Your task to perform on an android device: check storage Image 0: 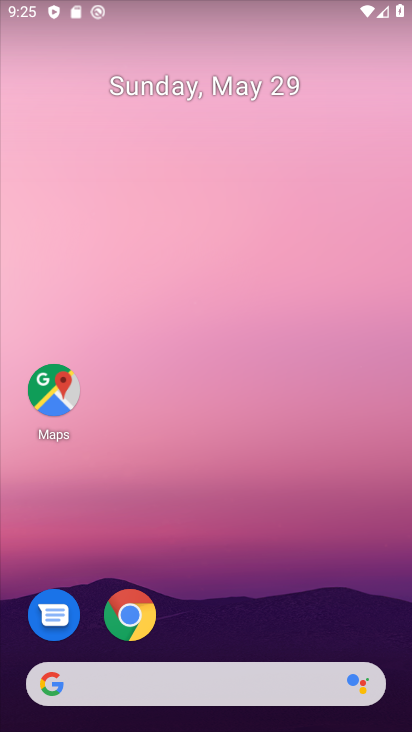
Step 0: drag from (215, 642) to (164, 9)
Your task to perform on an android device: check storage Image 1: 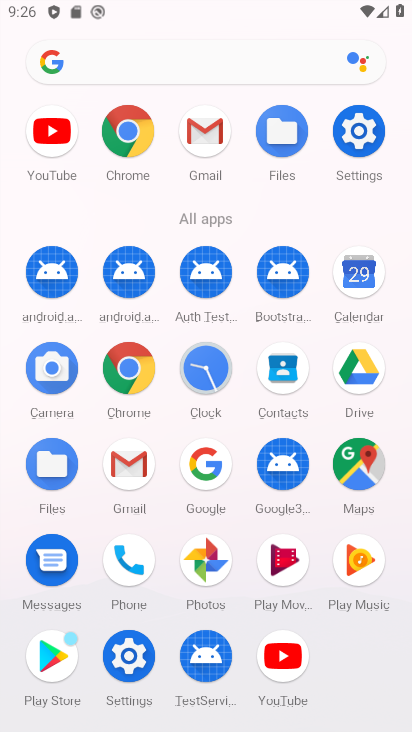
Step 1: click (368, 144)
Your task to perform on an android device: check storage Image 2: 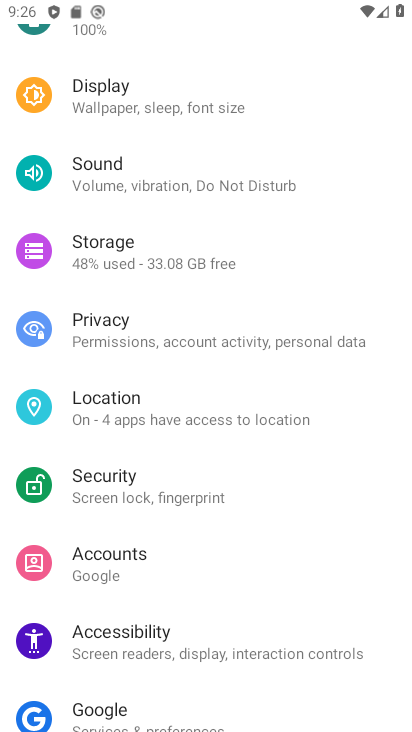
Step 2: click (81, 265)
Your task to perform on an android device: check storage Image 3: 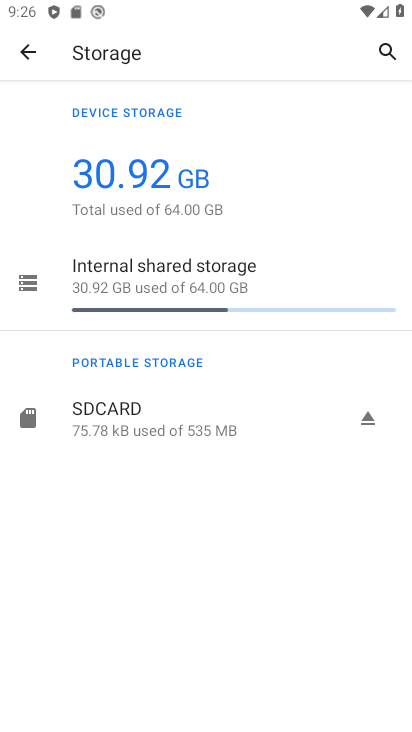
Step 3: task complete